Your task to perform on an android device: Open calendar and show me the first week of next month Image 0: 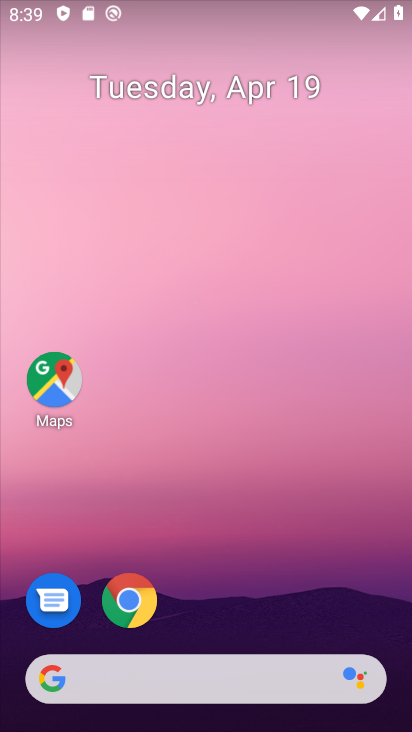
Step 0: drag from (244, 596) to (198, 50)
Your task to perform on an android device: Open calendar and show me the first week of next month Image 1: 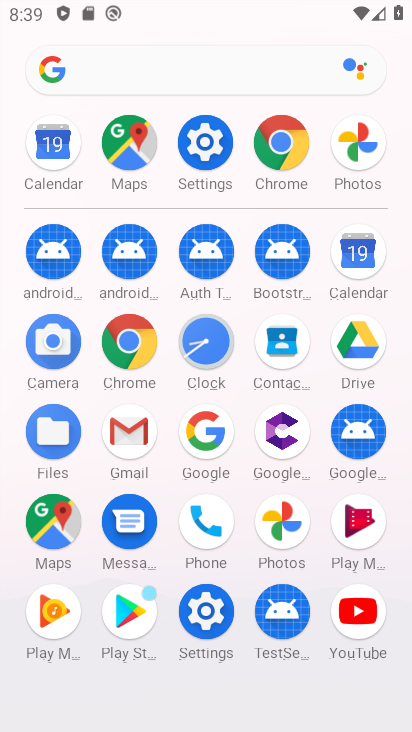
Step 1: click (365, 249)
Your task to perform on an android device: Open calendar and show me the first week of next month Image 2: 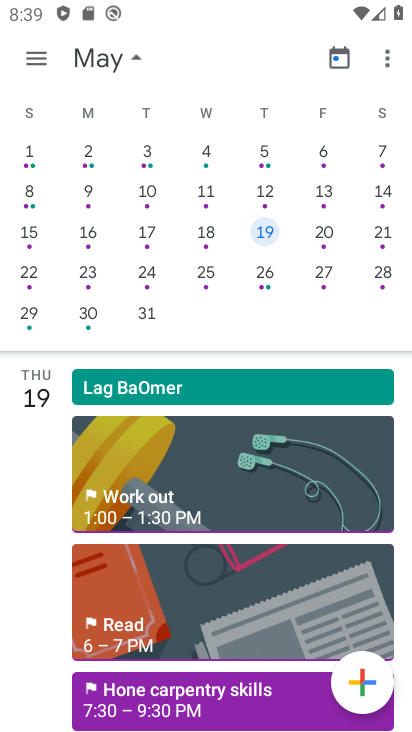
Step 2: drag from (346, 210) to (4, 197)
Your task to perform on an android device: Open calendar and show me the first week of next month Image 3: 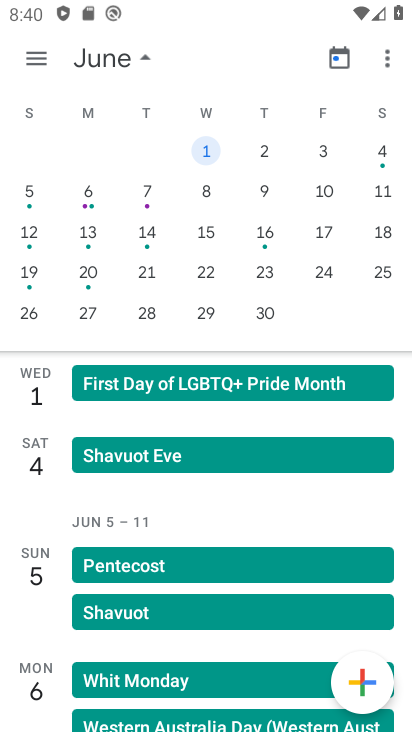
Step 3: click (85, 197)
Your task to perform on an android device: Open calendar and show me the first week of next month Image 4: 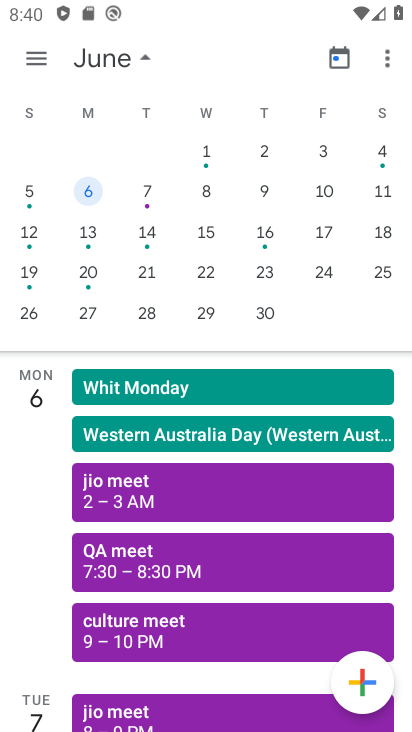
Step 4: task complete